Your task to perform on an android device: Search for flights from NYC to Barcelona Image 0: 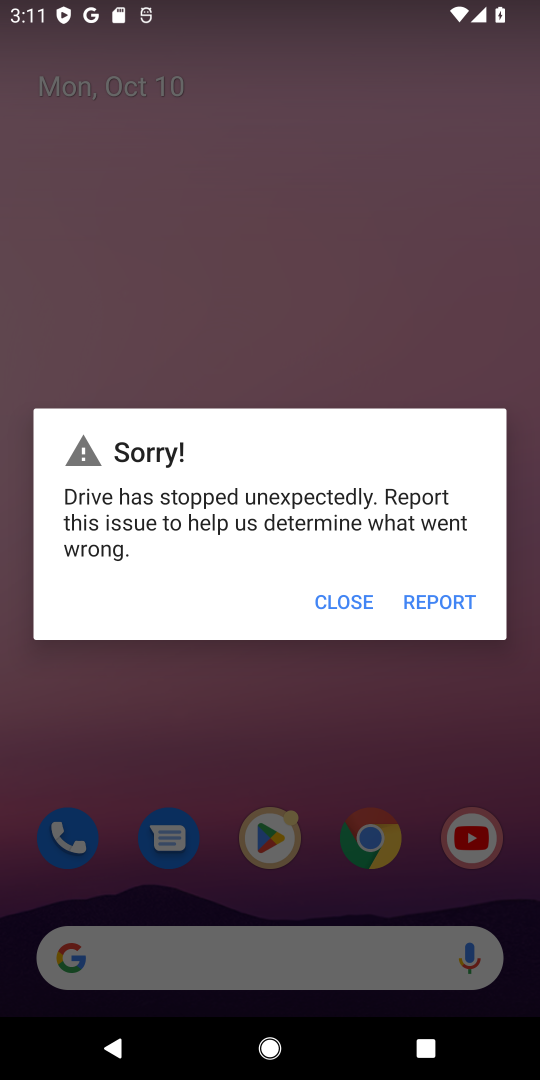
Step 0: click (334, 599)
Your task to perform on an android device: Search for flights from NYC to Barcelona Image 1: 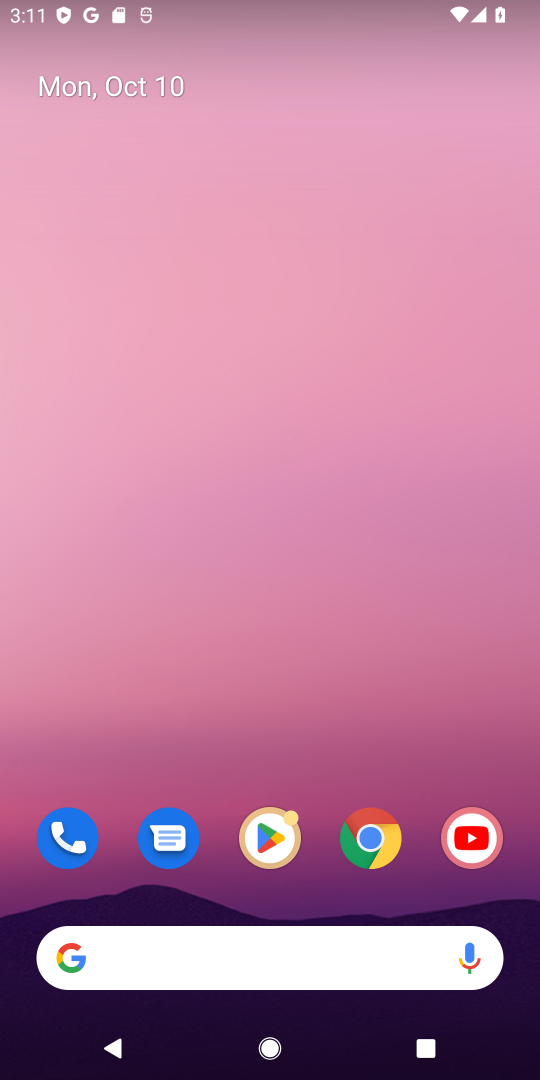
Step 1: click (243, 965)
Your task to perform on an android device: Search for flights from NYC to Barcelona Image 2: 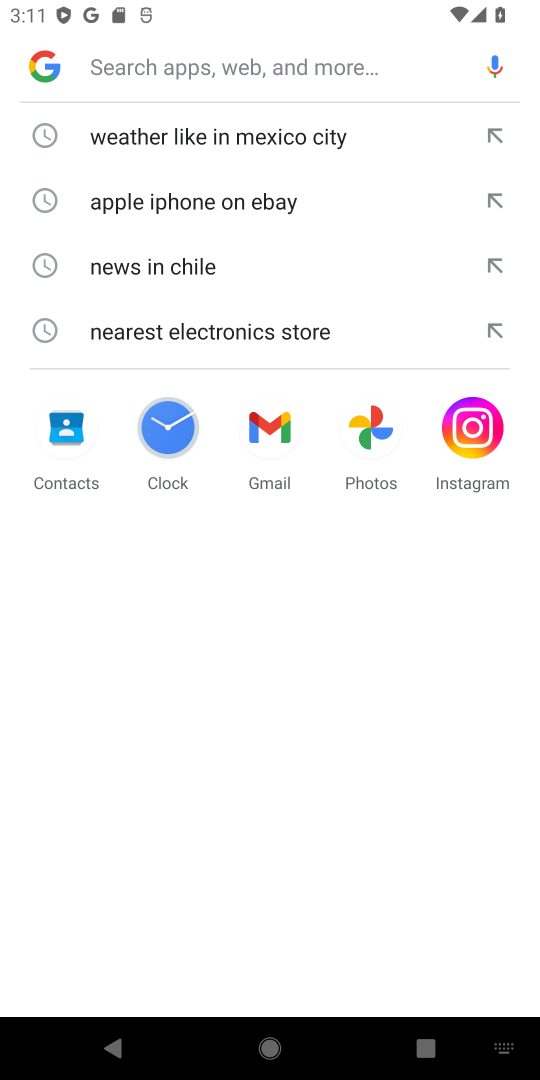
Step 2: type "flights from NYC to Barcelona"
Your task to perform on an android device: Search for flights from NYC to Barcelona Image 3: 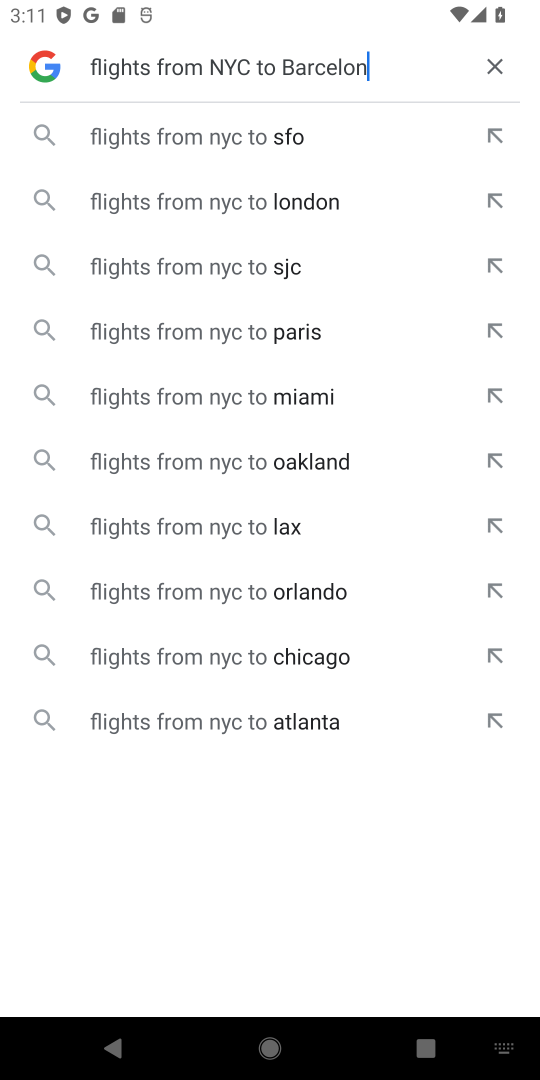
Step 3: type ""
Your task to perform on an android device: Search for flights from NYC to Barcelona Image 4: 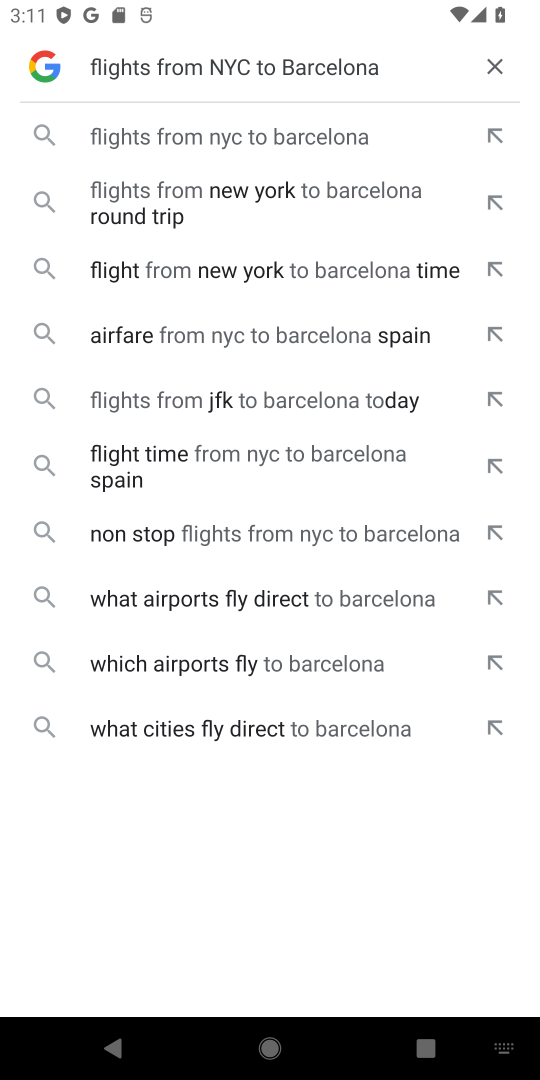
Step 4: click (307, 144)
Your task to perform on an android device: Search for flights from NYC to Barcelona Image 5: 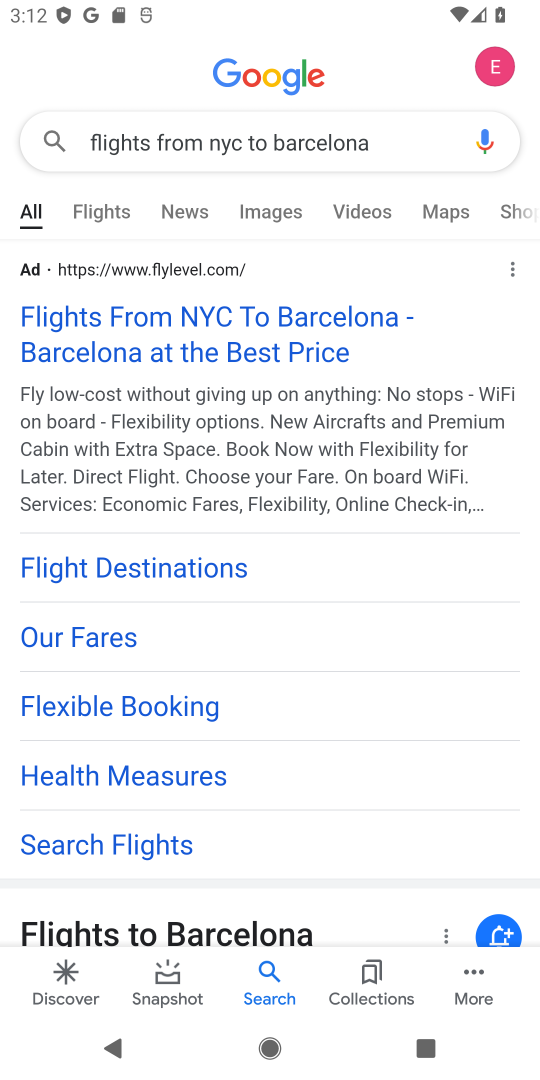
Step 5: drag from (253, 773) to (299, 369)
Your task to perform on an android device: Search for flights from NYC to Barcelona Image 6: 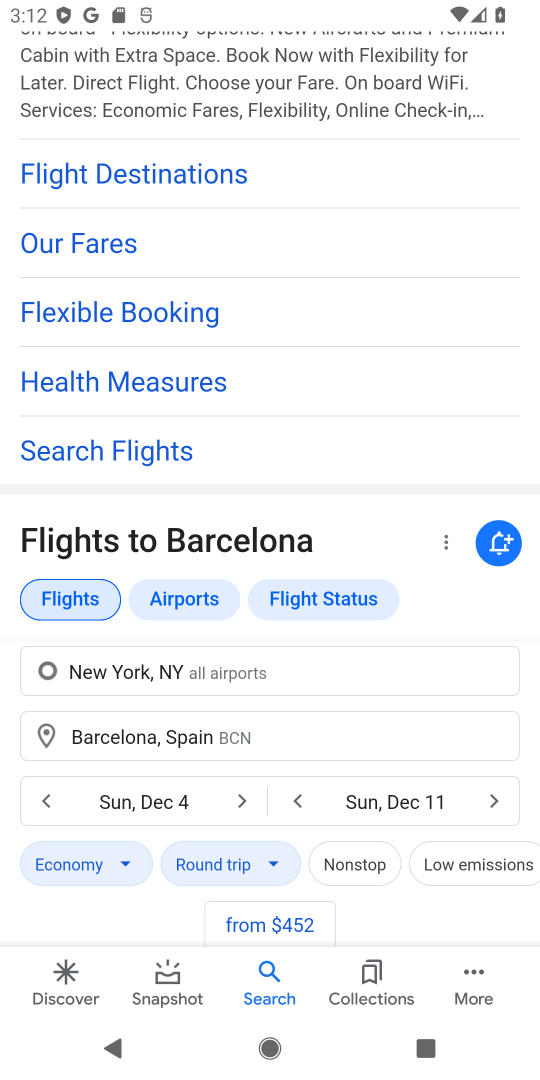
Step 6: drag from (269, 696) to (294, 244)
Your task to perform on an android device: Search for flights from NYC to Barcelona Image 7: 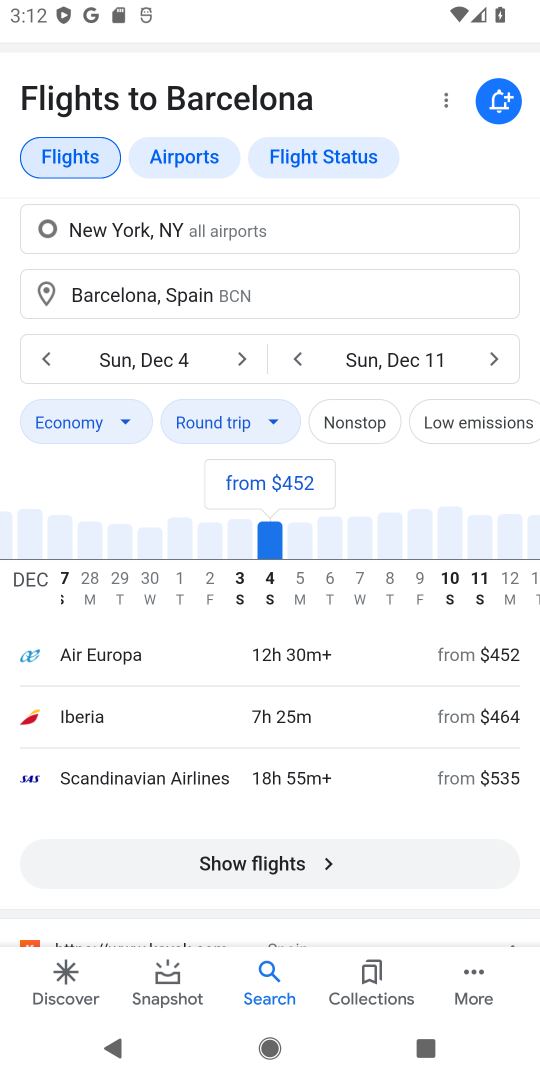
Step 7: drag from (324, 715) to (349, 261)
Your task to perform on an android device: Search for flights from NYC to Barcelona Image 8: 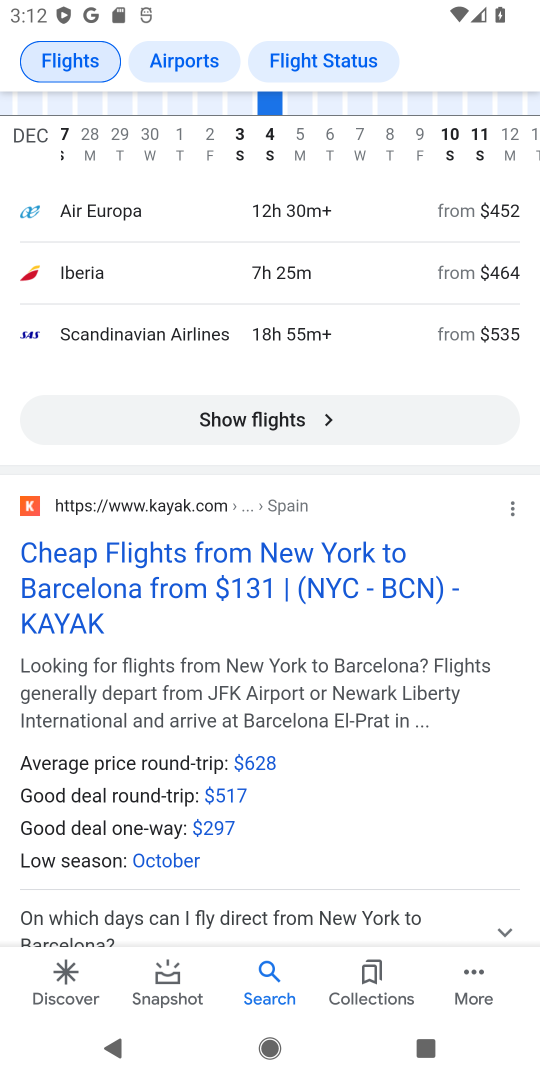
Step 8: click (317, 583)
Your task to perform on an android device: Search for flights from NYC to Barcelona Image 9: 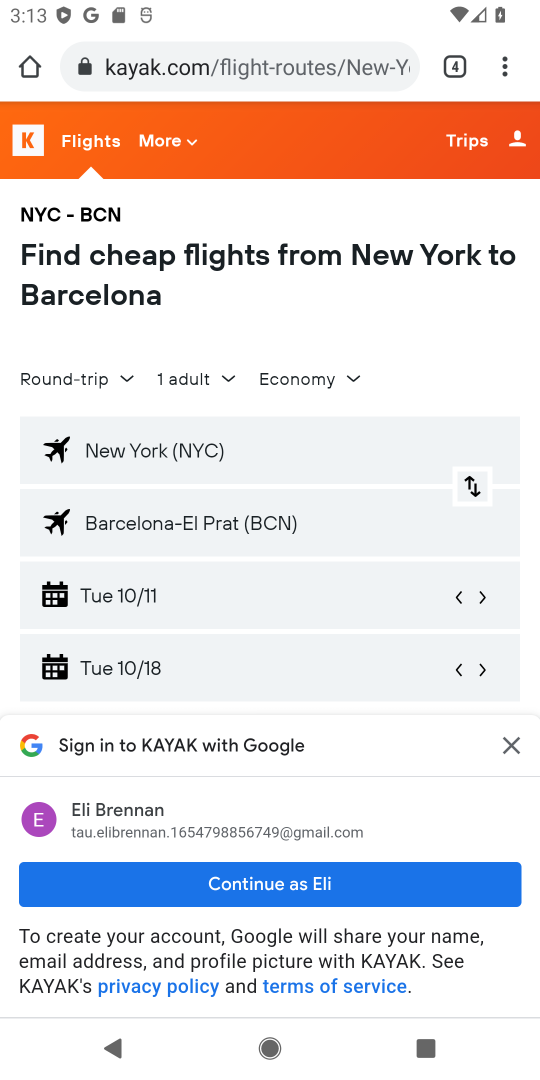
Step 9: click (508, 746)
Your task to perform on an android device: Search for flights from NYC to Barcelona Image 10: 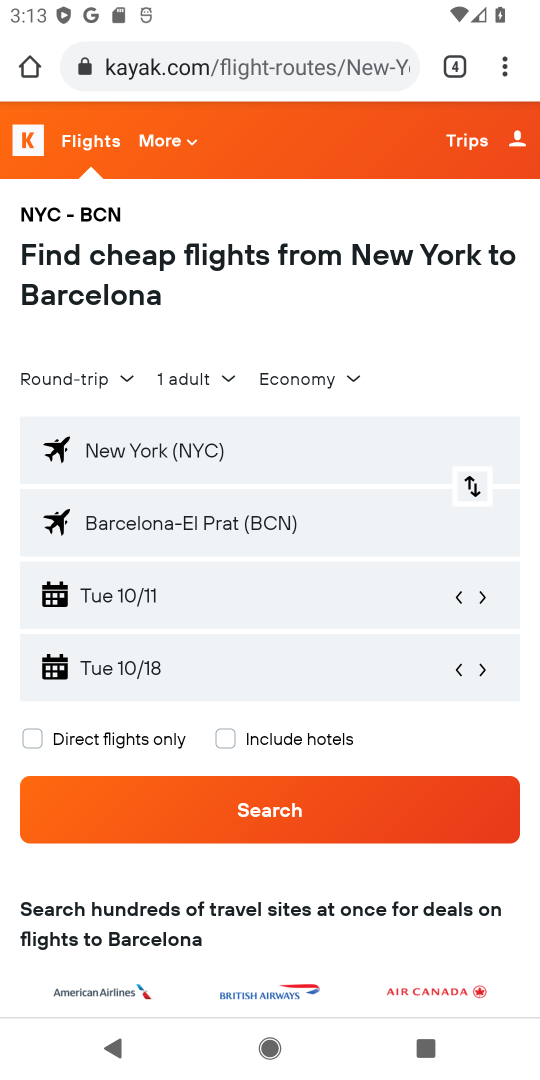
Step 10: task complete